Your task to perform on an android device: When is my next meeting? Image 0: 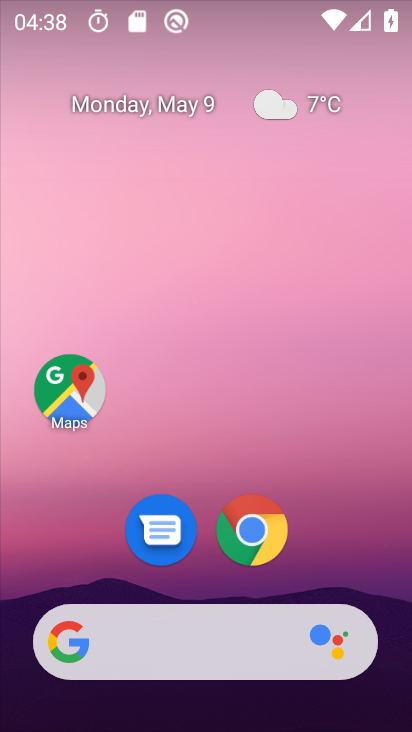
Step 0: drag from (246, 483) to (316, 47)
Your task to perform on an android device: When is my next meeting? Image 1: 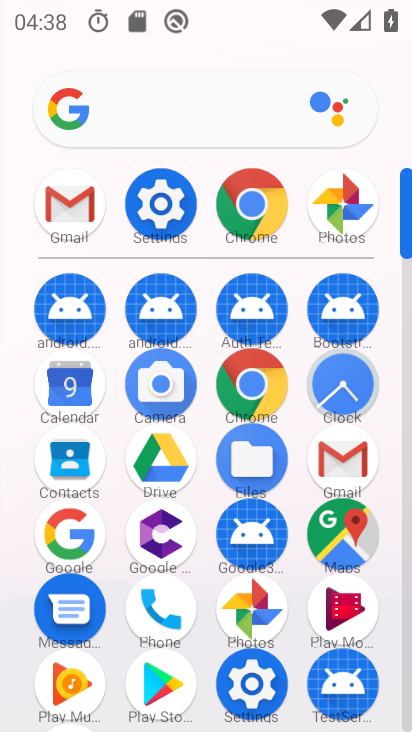
Step 1: click (70, 380)
Your task to perform on an android device: When is my next meeting? Image 2: 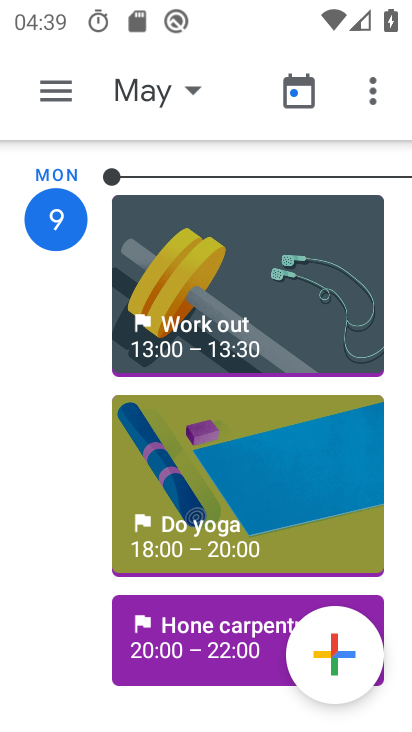
Step 2: drag from (181, 605) to (327, 138)
Your task to perform on an android device: When is my next meeting? Image 3: 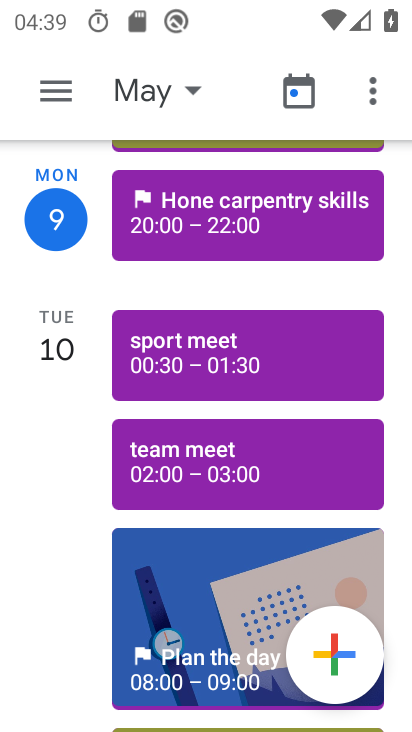
Step 3: click (182, 446)
Your task to perform on an android device: When is my next meeting? Image 4: 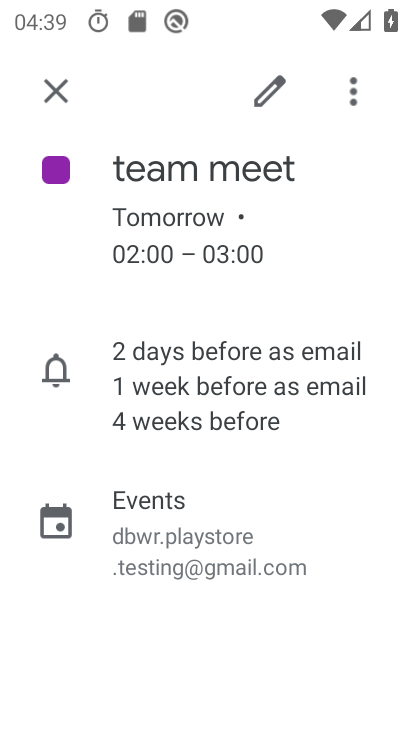
Step 4: task complete